Your task to perform on an android device: What is the recent news? Image 0: 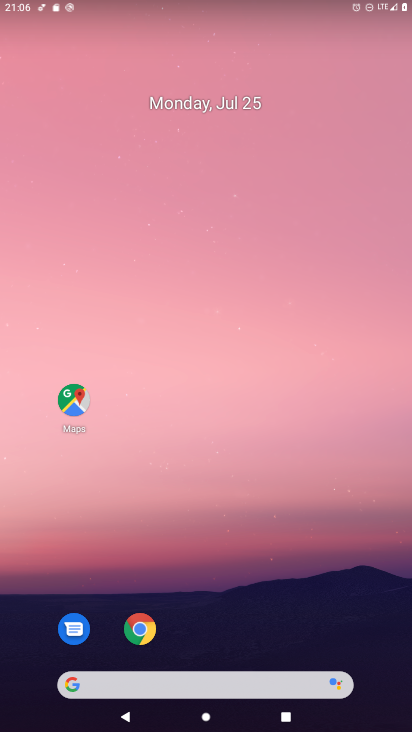
Step 0: click (139, 630)
Your task to perform on an android device: What is the recent news? Image 1: 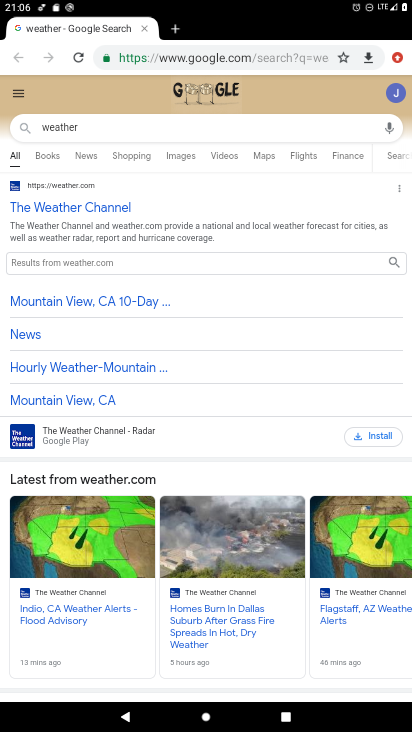
Step 1: click (322, 57)
Your task to perform on an android device: What is the recent news? Image 2: 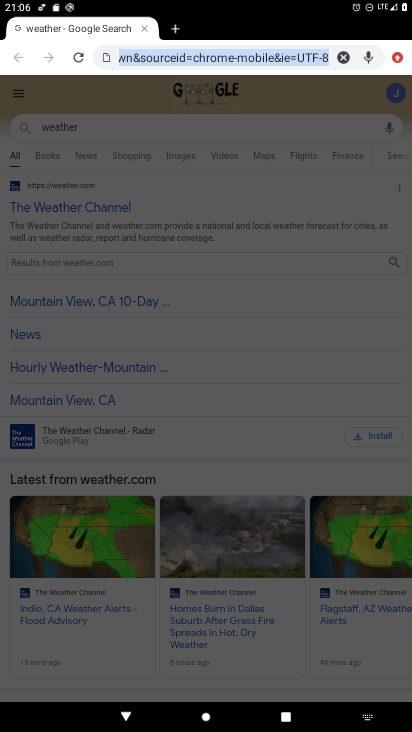
Step 2: type "recent news"
Your task to perform on an android device: What is the recent news? Image 3: 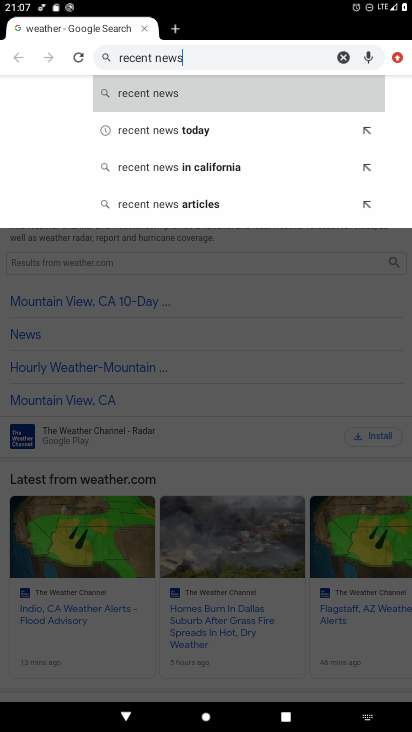
Step 3: click (208, 100)
Your task to perform on an android device: What is the recent news? Image 4: 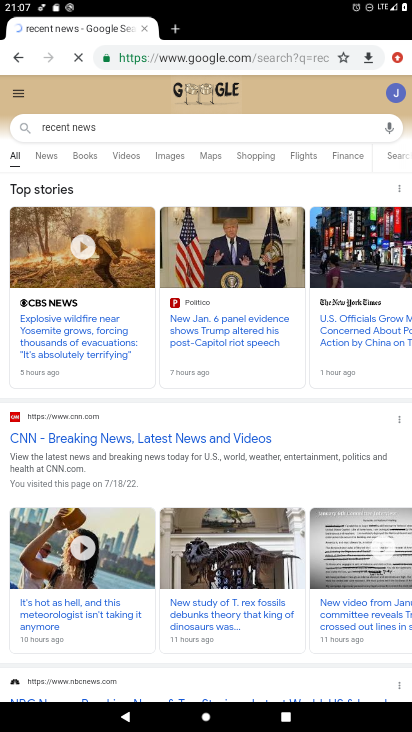
Step 4: click (80, 332)
Your task to perform on an android device: What is the recent news? Image 5: 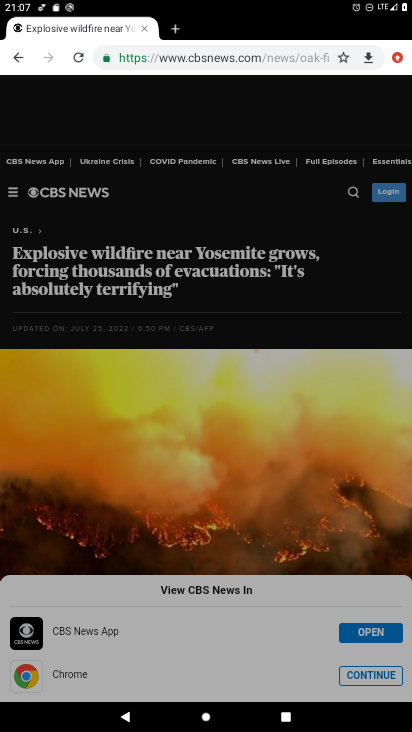
Step 5: click (366, 672)
Your task to perform on an android device: What is the recent news? Image 6: 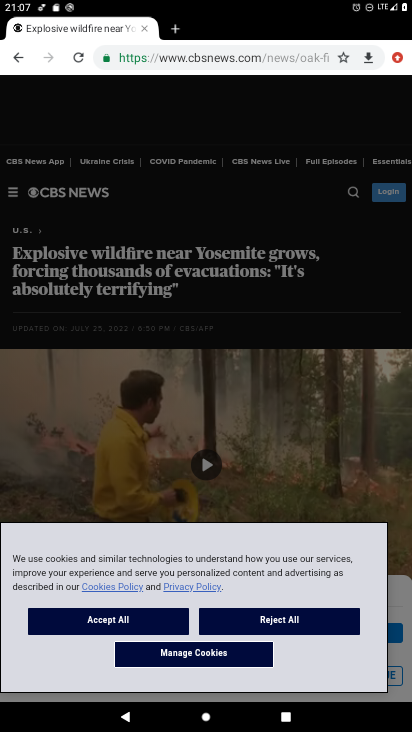
Step 6: click (125, 616)
Your task to perform on an android device: What is the recent news? Image 7: 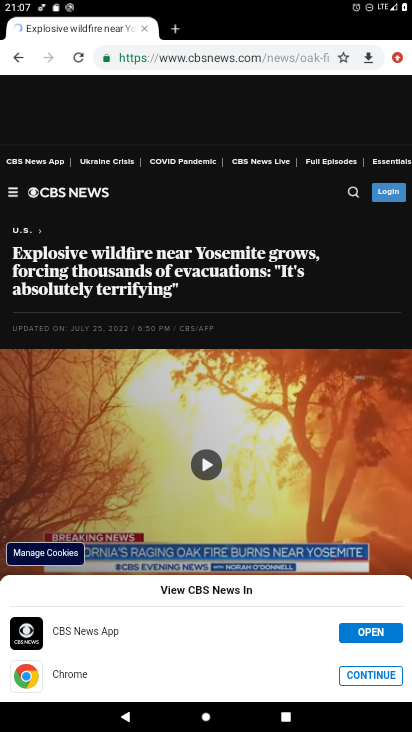
Step 7: task complete